Your task to perform on an android device: Open Yahoo.com Image 0: 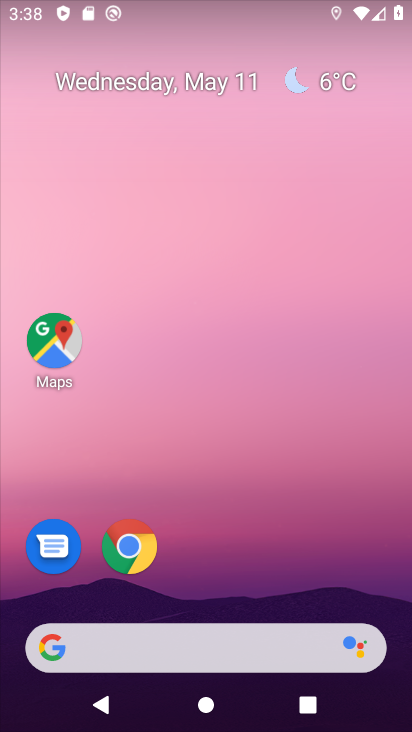
Step 0: click (132, 542)
Your task to perform on an android device: Open Yahoo.com Image 1: 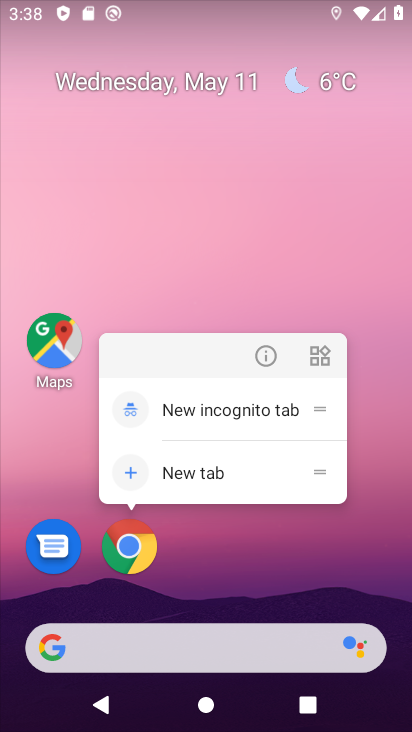
Step 1: click (126, 551)
Your task to perform on an android device: Open Yahoo.com Image 2: 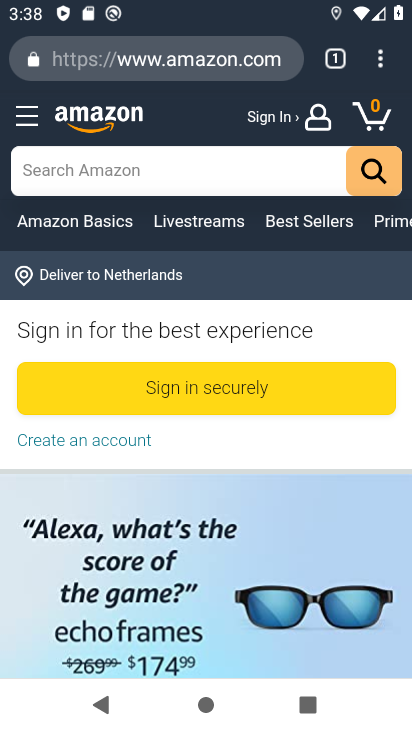
Step 2: click (128, 562)
Your task to perform on an android device: Open Yahoo.com Image 3: 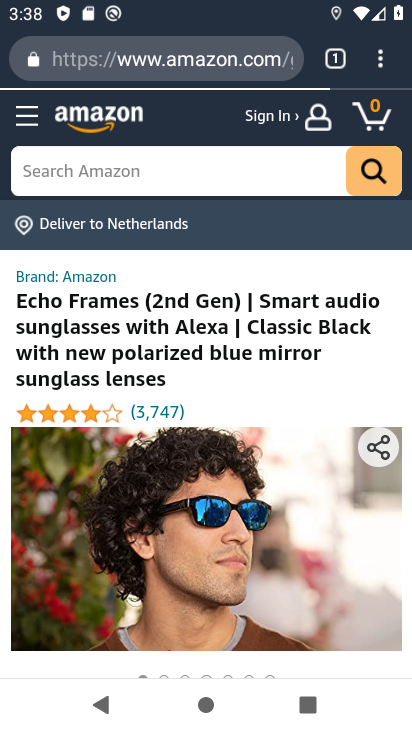
Step 3: press back button
Your task to perform on an android device: Open Yahoo.com Image 4: 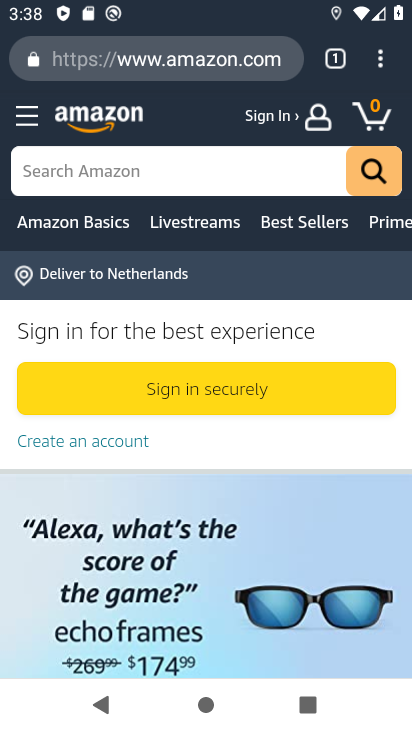
Step 4: drag from (383, 64) to (250, 123)
Your task to perform on an android device: Open Yahoo.com Image 5: 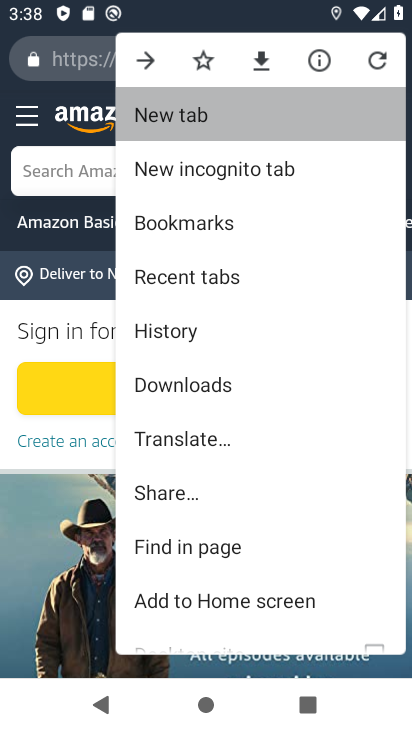
Step 5: click (249, 122)
Your task to perform on an android device: Open Yahoo.com Image 6: 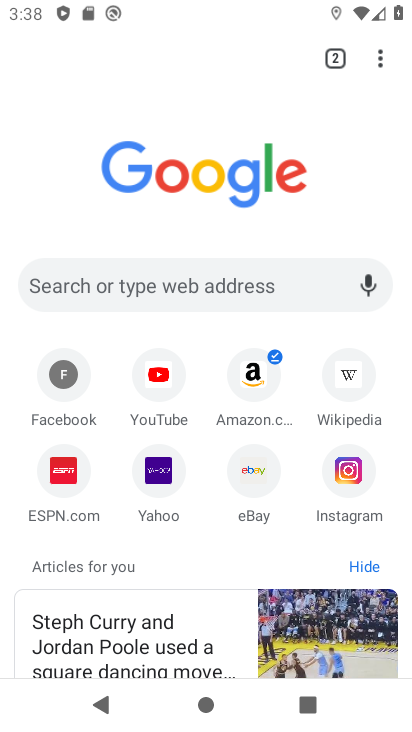
Step 6: click (193, 478)
Your task to perform on an android device: Open Yahoo.com Image 7: 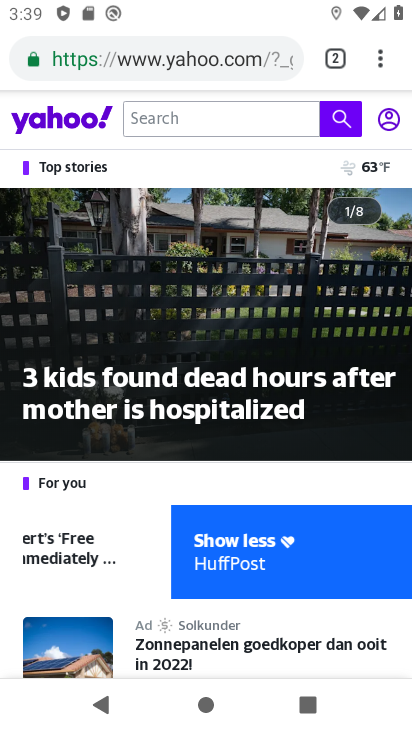
Step 7: task complete